Your task to perform on an android device: Play the last video I watched on Youtube Image 0: 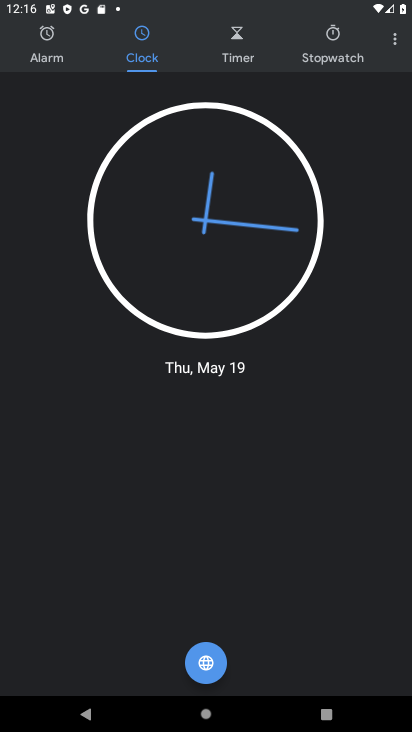
Step 0: press home button
Your task to perform on an android device: Play the last video I watched on Youtube Image 1: 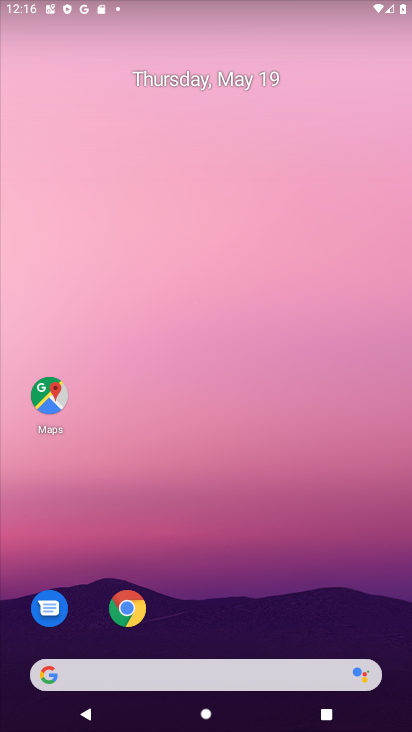
Step 1: drag from (254, 576) to (302, 244)
Your task to perform on an android device: Play the last video I watched on Youtube Image 2: 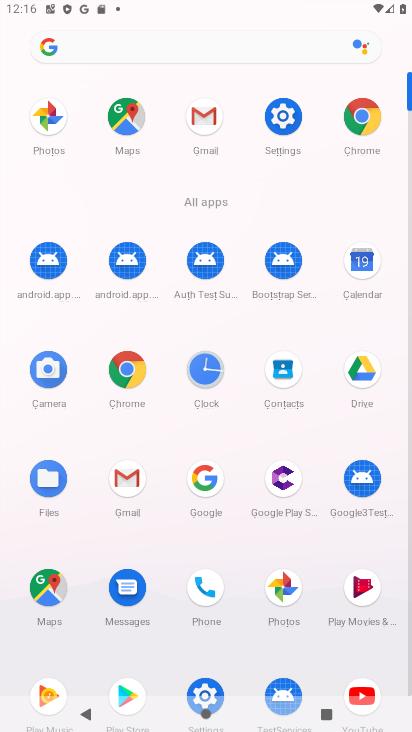
Step 2: drag from (343, 651) to (351, 490)
Your task to perform on an android device: Play the last video I watched on Youtube Image 3: 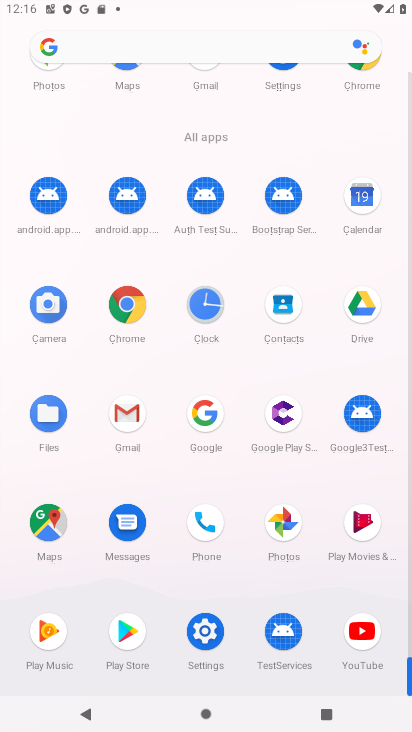
Step 3: click (348, 634)
Your task to perform on an android device: Play the last video I watched on Youtube Image 4: 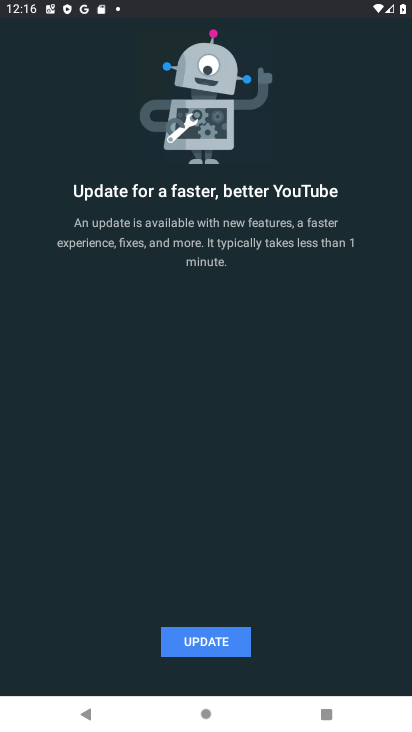
Step 4: task complete